Your task to perform on an android device: turn pop-ups on in chrome Image 0: 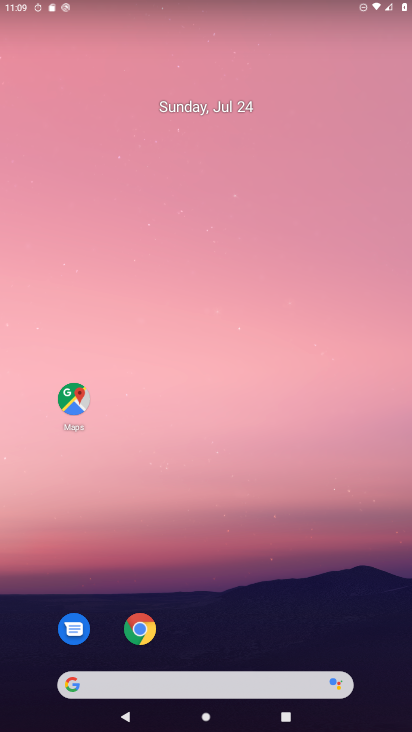
Step 0: drag from (220, 709) to (200, 300)
Your task to perform on an android device: turn pop-ups on in chrome Image 1: 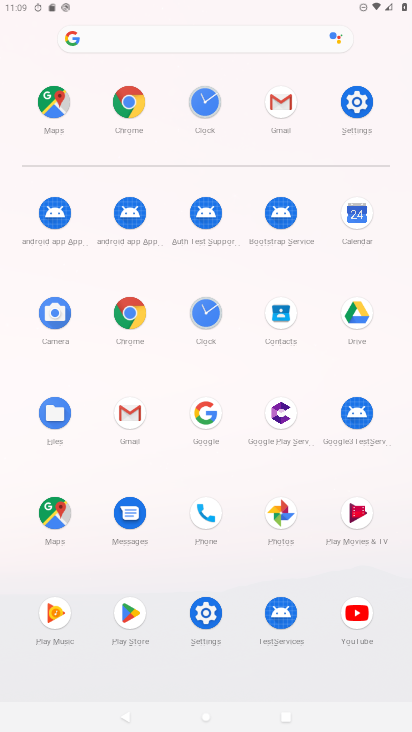
Step 1: click (134, 128)
Your task to perform on an android device: turn pop-ups on in chrome Image 2: 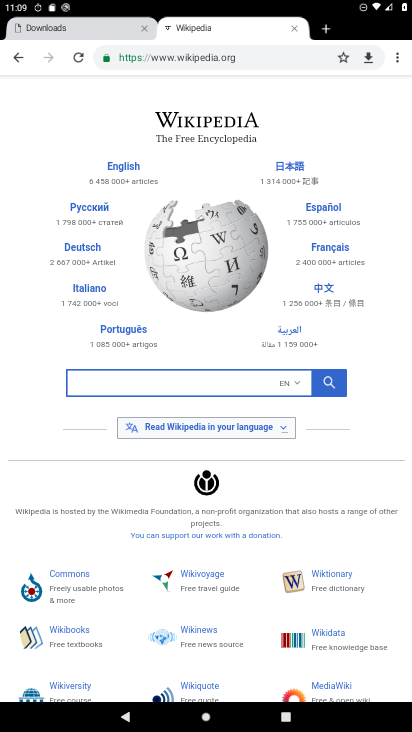
Step 2: click (402, 63)
Your task to perform on an android device: turn pop-ups on in chrome Image 3: 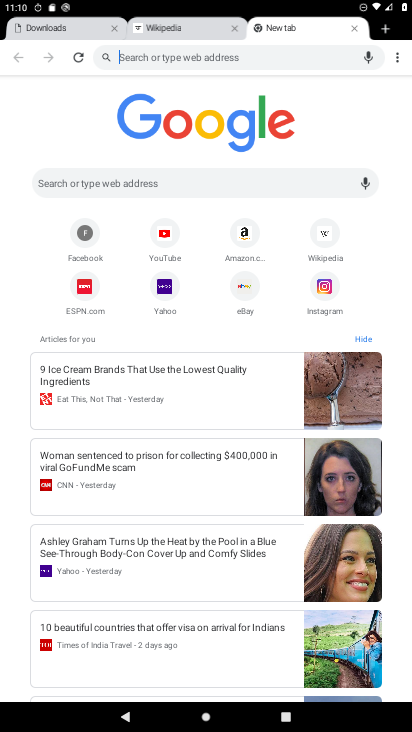
Step 3: click (396, 66)
Your task to perform on an android device: turn pop-ups on in chrome Image 4: 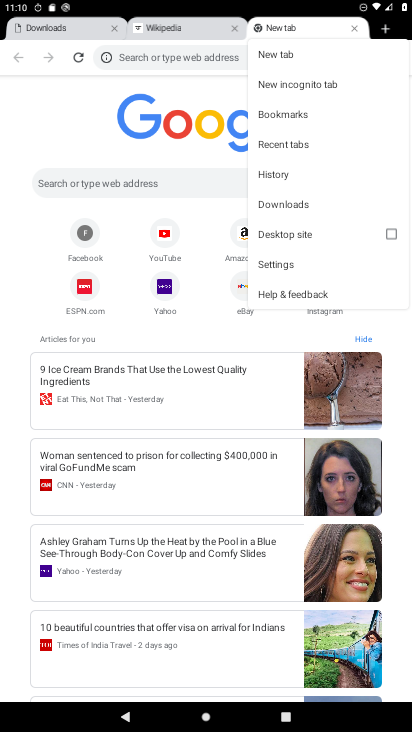
Step 4: click (273, 265)
Your task to perform on an android device: turn pop-ups on in chrome Image 5: 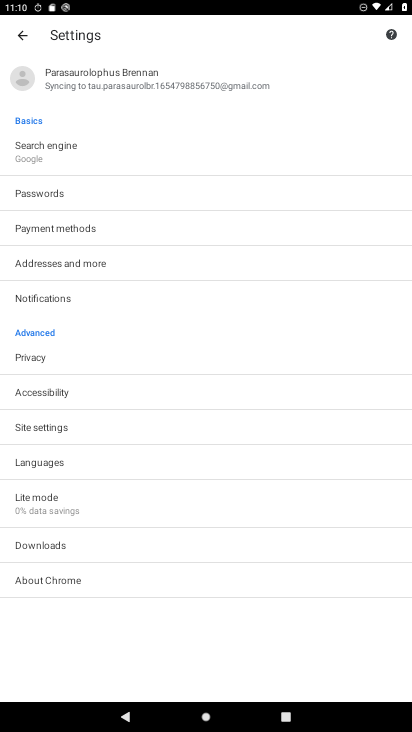
Step 5: click (74, 429)
Your task to perform on an android device: turn pop-ups on in chrome Image 6: 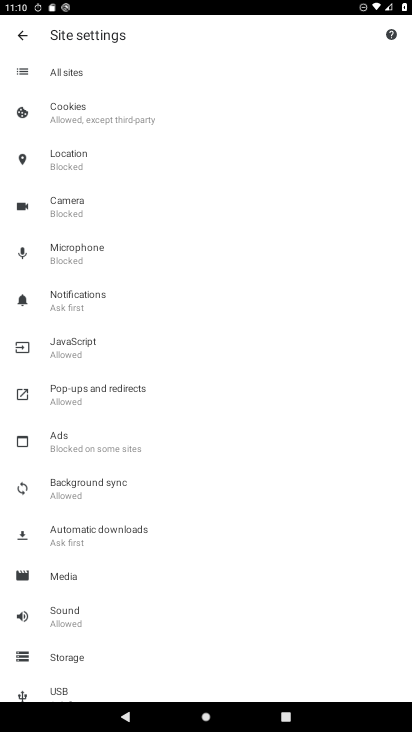
Step 6: click (94, 404)
Your task to perform on an android device: turn pop-ups on in chrome Image 7: 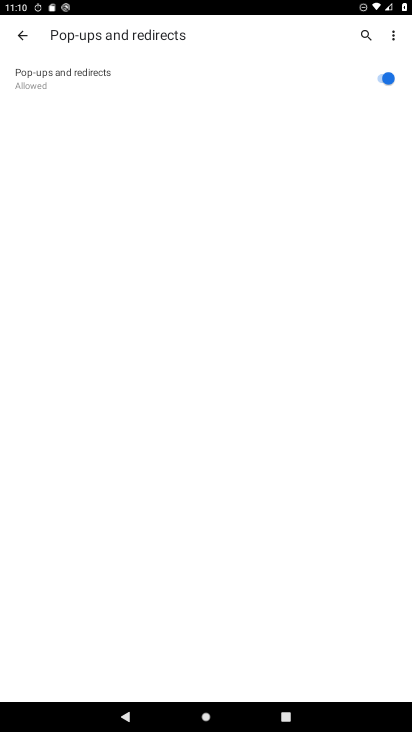
Step 7: task complete